Your task to perform on an android device: Show me productivity apps on the Play Store Image 0: 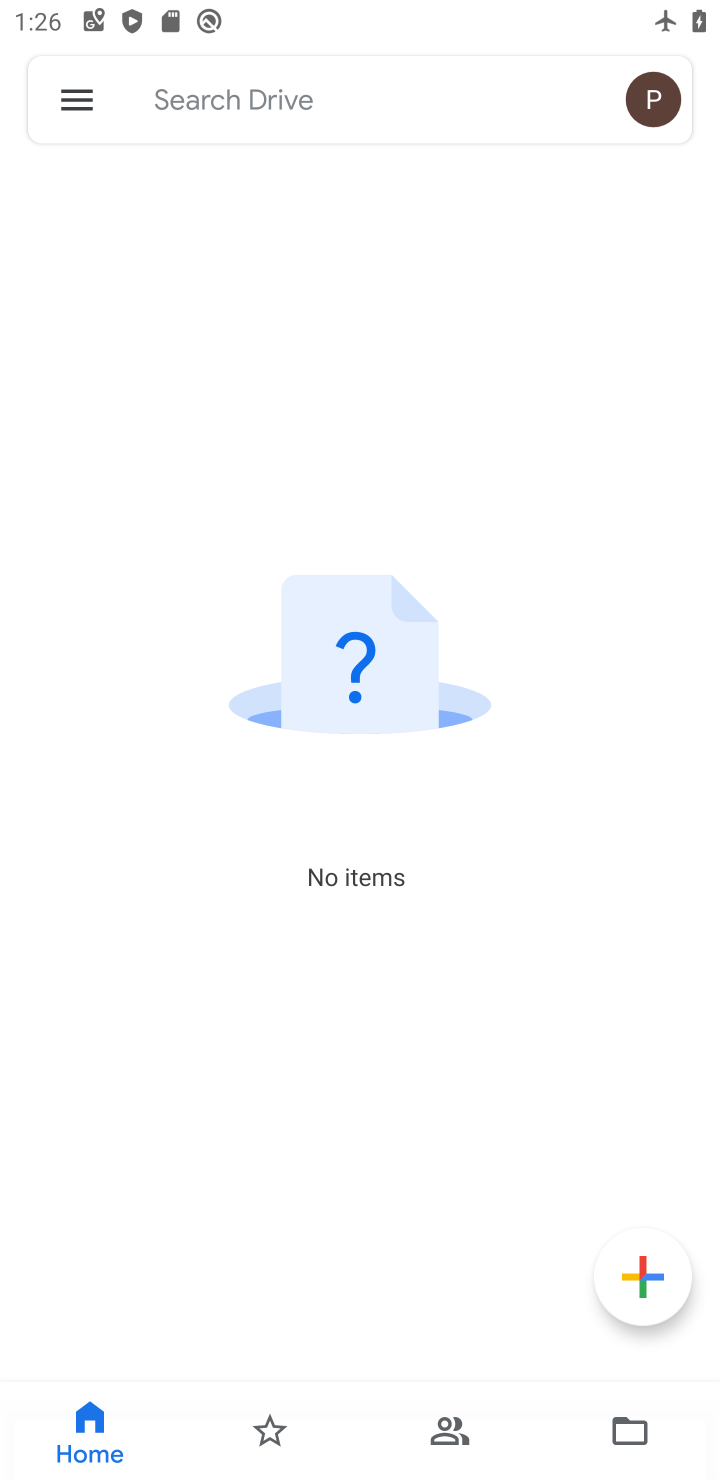
Step 0: press home button
Your task to perform on an android device: Show me productivity apps on the Play Store Image 1: 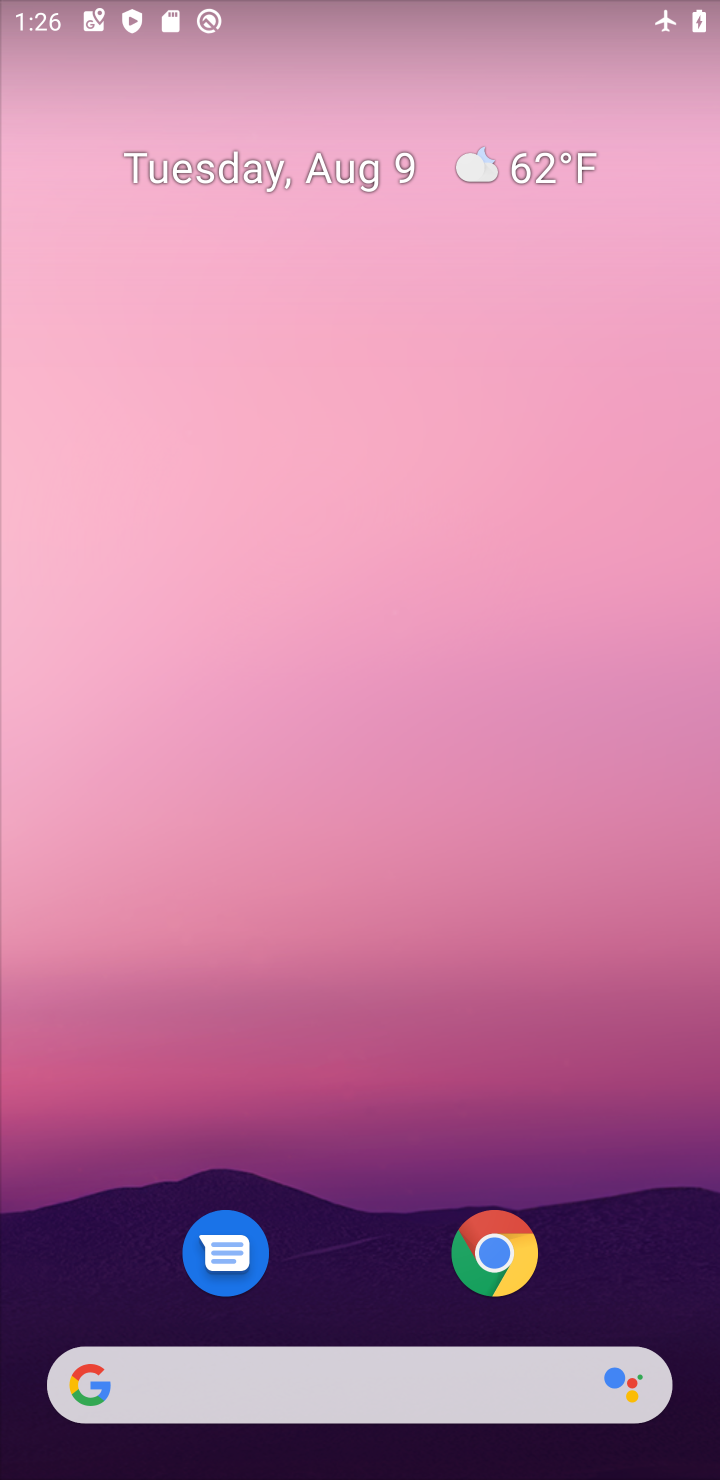
Step 1: drag from (667, 1248) to (304, 346)
Your task to perform on an android device: Show me productivity apps on the Play Store Image 2: 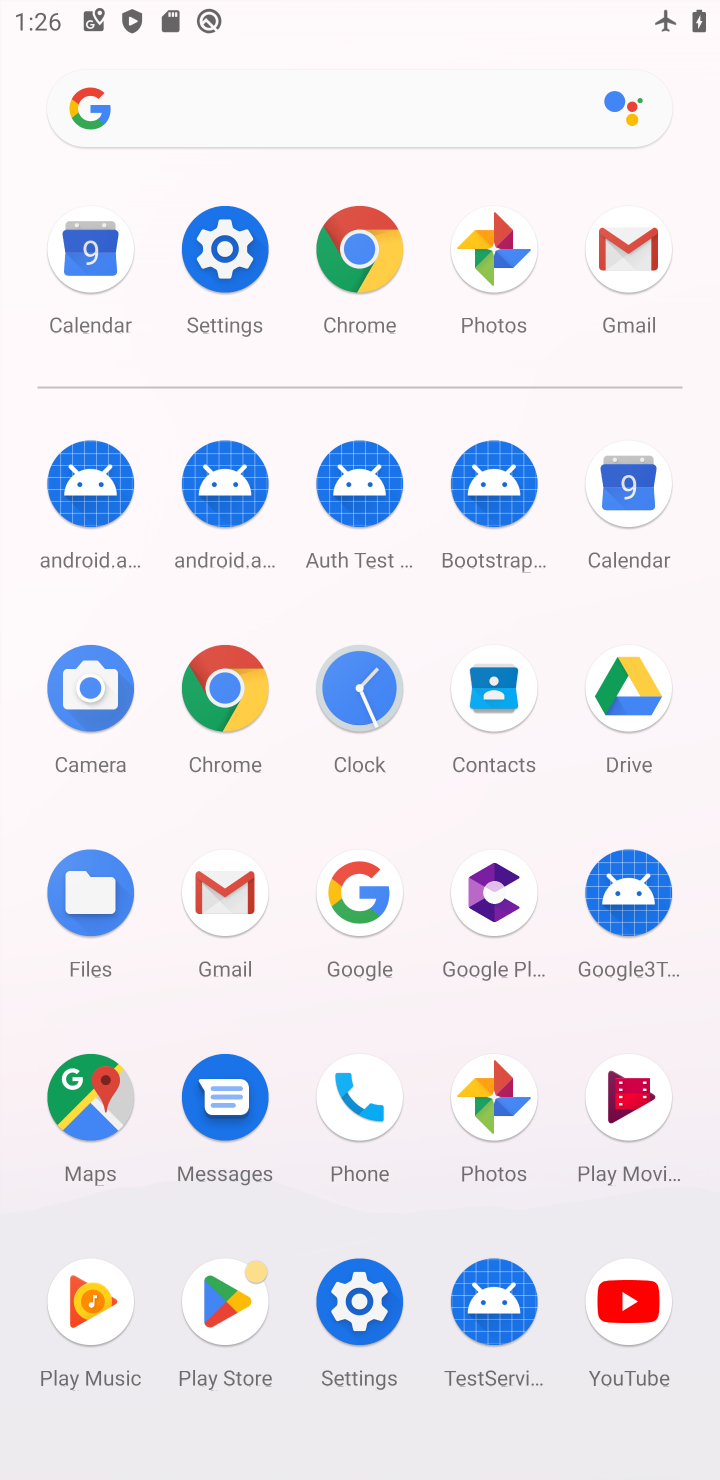
Step 2: click (229, 1334)
Your task to perform on an android device: Show me productivity apps on the Play Store Image 3: 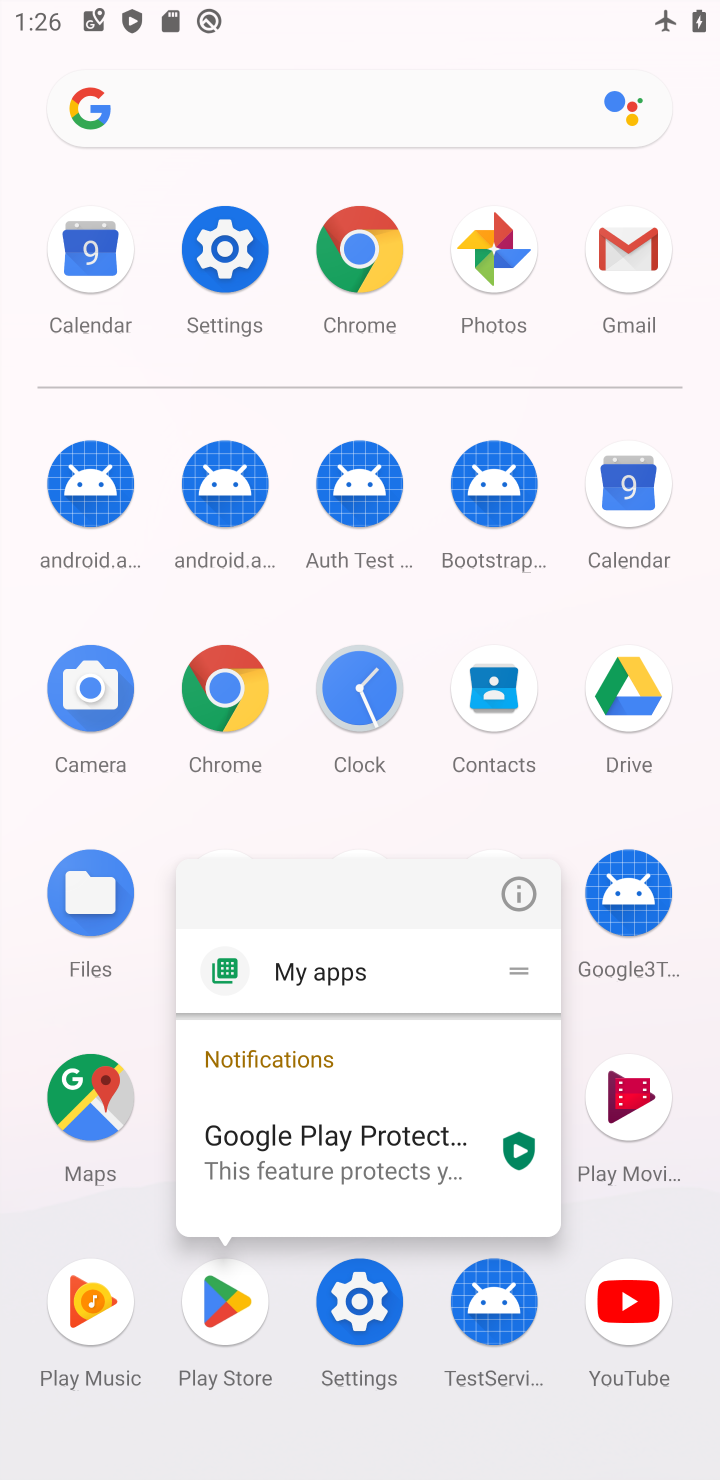
Step 3: click (248, 1315)
Your task to perform on an android device: Show me productivity apps on the Play Store Image 4: 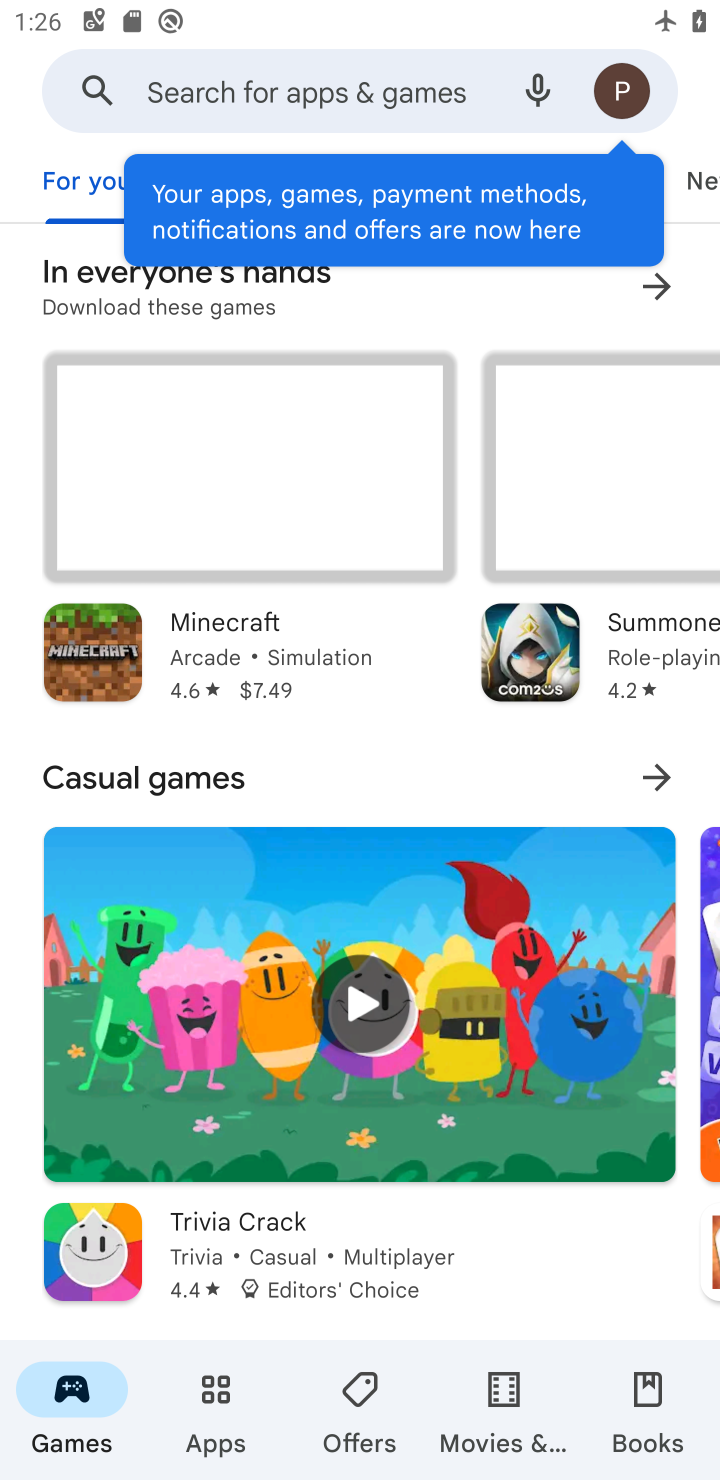
Step 4: task complete